Your task to perform on an android device: turn vacation reply on in the gmail app Image 0: 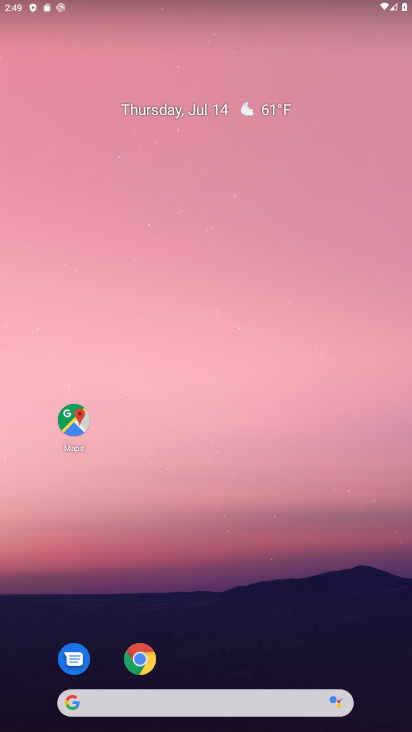
Step 0: drag from (202, 698) to (208, 267)
Your task to perform on an android device: turn vacation reply on in the gmail app Image 1: 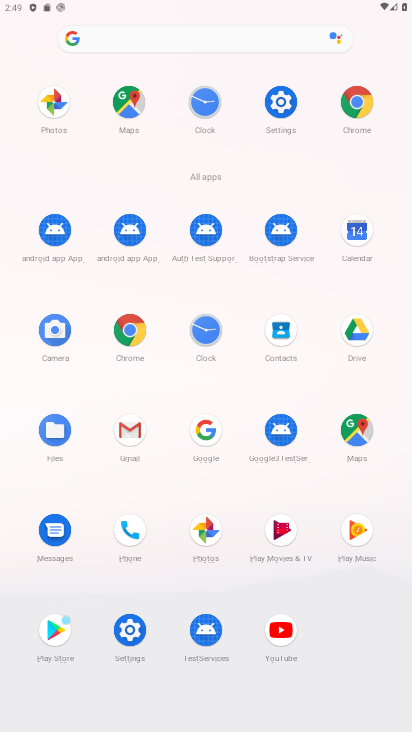
Step 1: click (130, 429)
Your task to perform on an android device: turn vacation reply on in the gmail app Image 2: 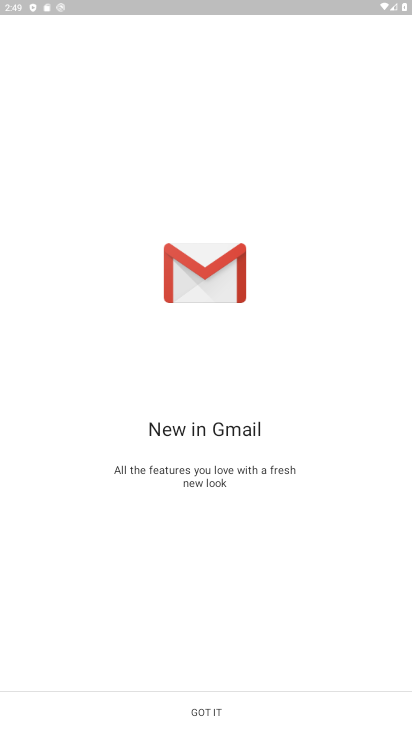
Step 2: click (210, 712)
Your task to perform on an android device: turn vacation reply on in the gmail app Image 3: 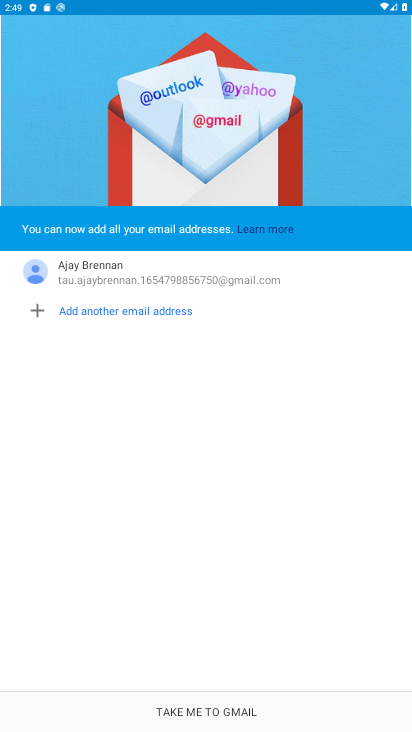
Step 3: click (210, 712)
Your task to perform on an android device: turn vacation reply on in the gmail app Image 4: 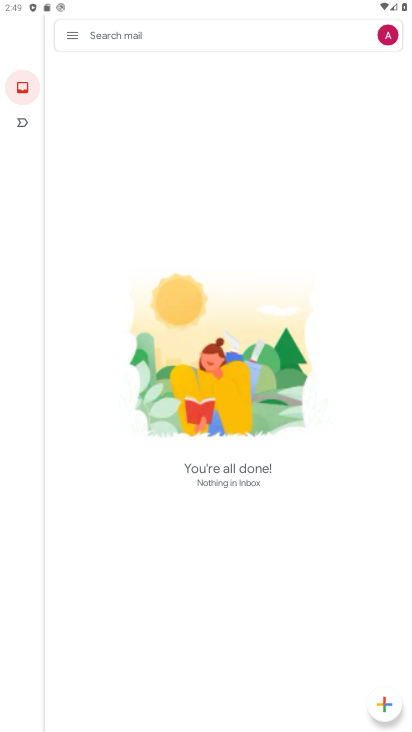
Step 4: click (73, 35)
Your task to perform on an android device: turn vacation reply on in the gmail app Image 5: 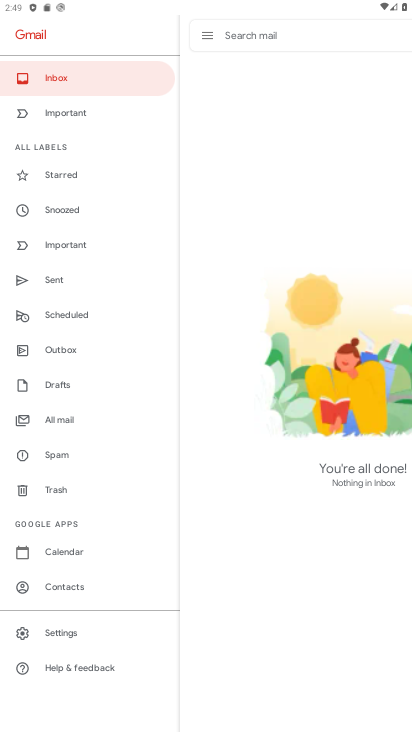
Step 5: click (61, 636)
Your task to perform on an android device: turn vacation reply on in the gmail app Image 6: 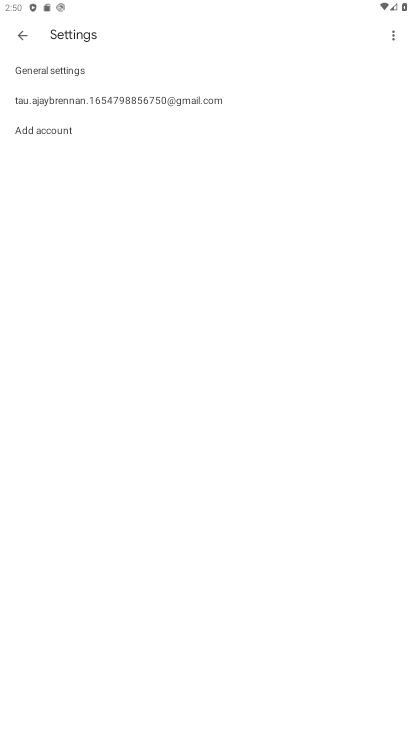
Step 6: click (140, 101)
Your task to perform on an android device: turn vacation reply on in the gmail app Image 7: 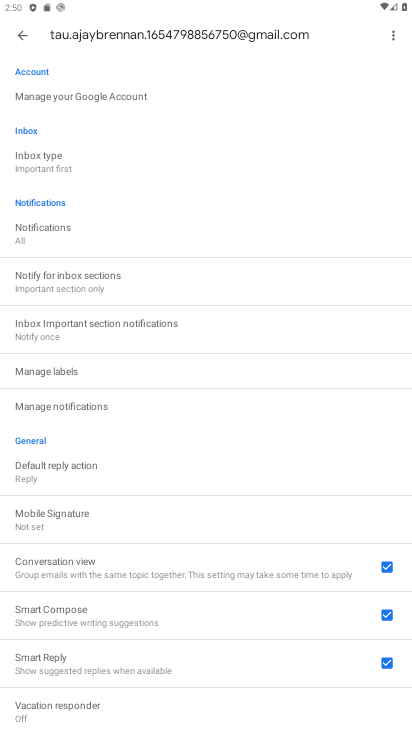
Step 7: drag from (68, 484) to (132, 392)
Your task to perform on an android device: turn vacation reply on in the gmail app Image 8: 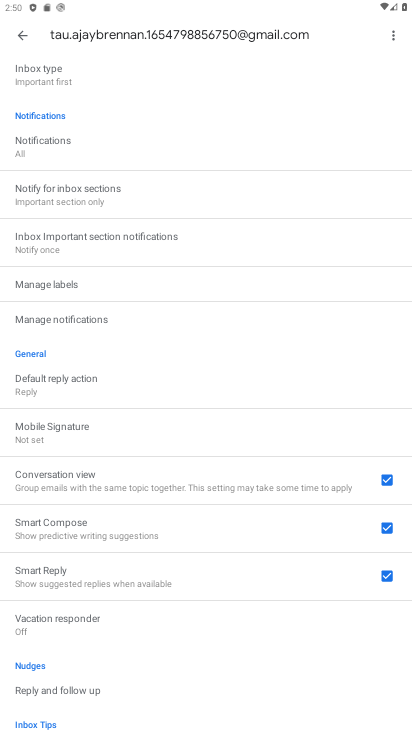
Step 8: click (79, 623)
Your task to perform on an android device: turn vacation reply on in the gmail app Image 9: 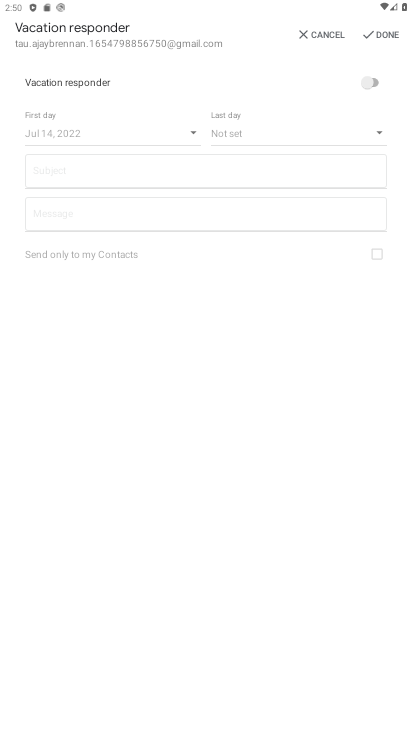
Step 9: click (374, 83)
Your task to perform on an android device: turn vacation reply on in the gmail app Image 10: 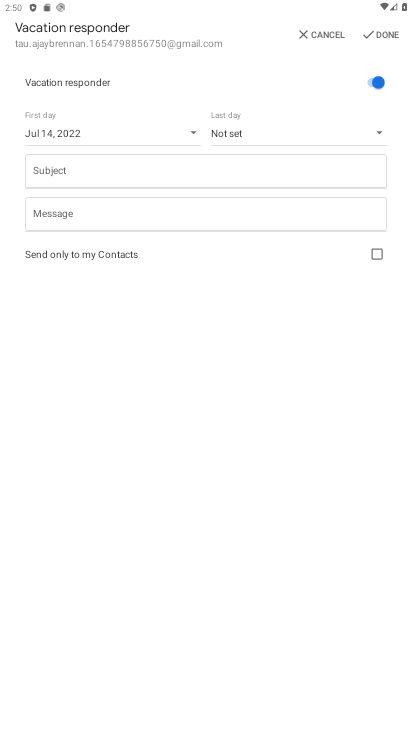
Step 10: task complete